Your task to perform on an android device: What's the news in French Guiana? Image 0: 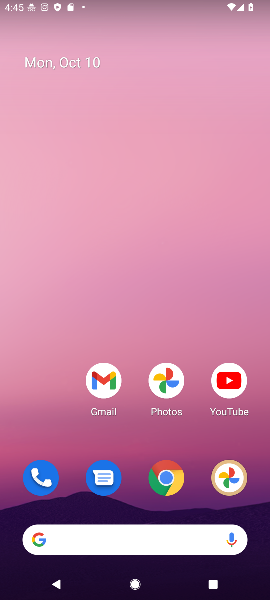
Step 0: click (163, 479)
Your task to perform on an android device: What's the news in French Guiana? Image 1: 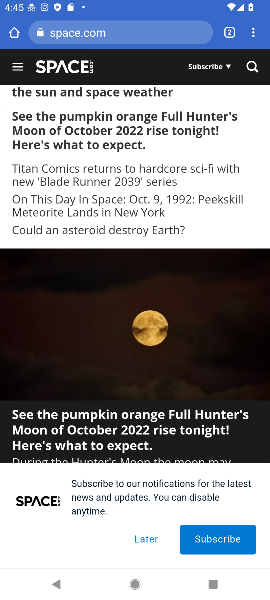
Step 1: click (99, 36)
Your task to perform on an android device: What's the news in French Guiana? Image 2: 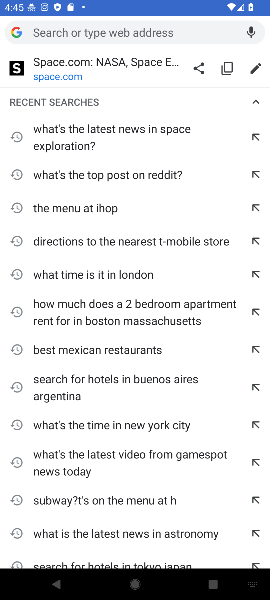
Step 2: type " news in French Guiana?"
Your task to perform on an android device: What's the news in French Guiana? Image 3: 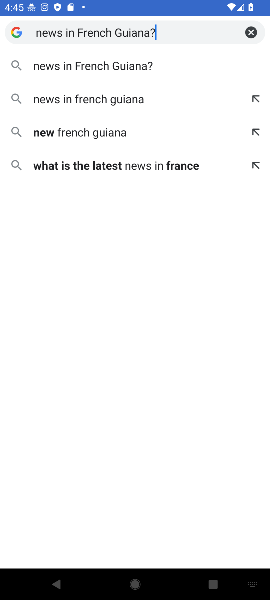
Step 3: click (125, 62)
Your task to perform on an android device: What's the news in French Guiana? Image 4: 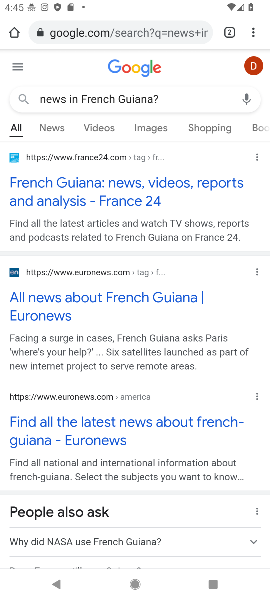
Step 4: click (61, 125)
Your task to perform on an android device: What's the news in French Guiana? Image 5: 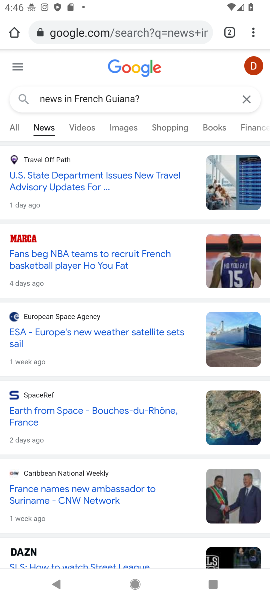
Step 5: task complete